Your task to perform on an android device: What's on my calendar today? Image 0: 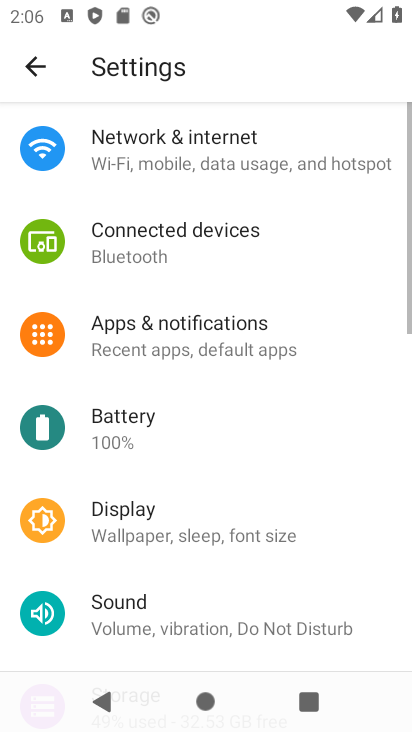
Step 0: press home button
Your task to perform on an android device: What's on my calendar today? Image 1: 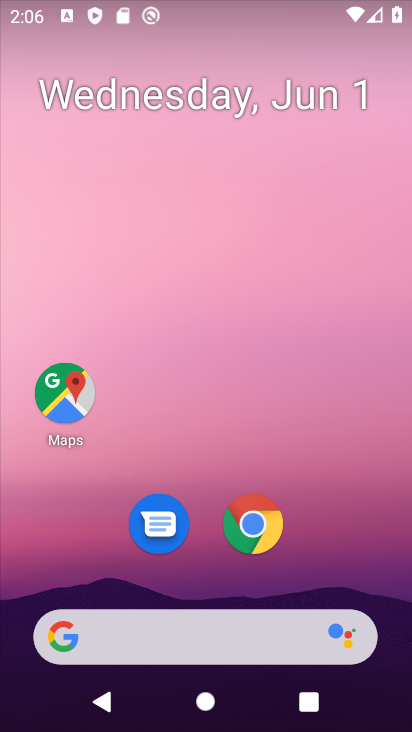
Step 1: drag from (341, 556) to (276, 44)
Your task to perform on an android device: What's on my calendar today? Image 2: 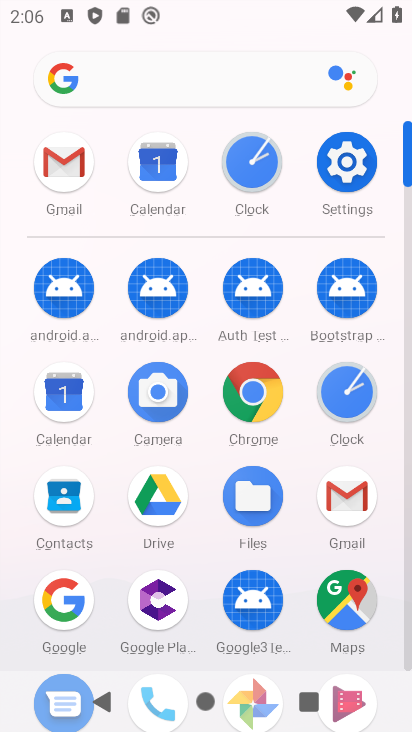
Step 2: click (167, 162)
Your task to perform on an android device: What's on my calendar today? Image 3: 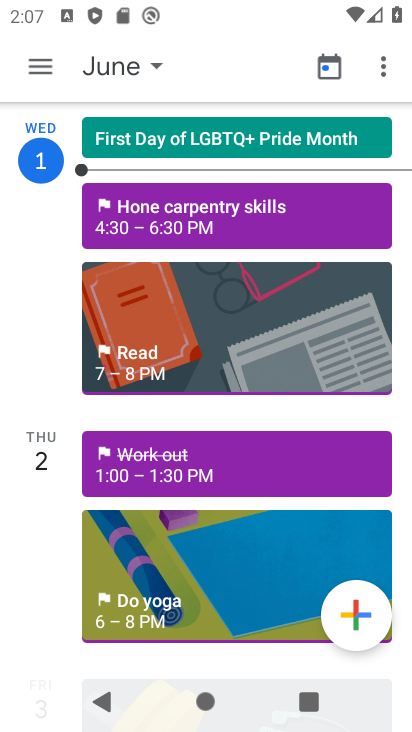
Step 3: task complete